Your task to perform on an android device: check android version Image 0: 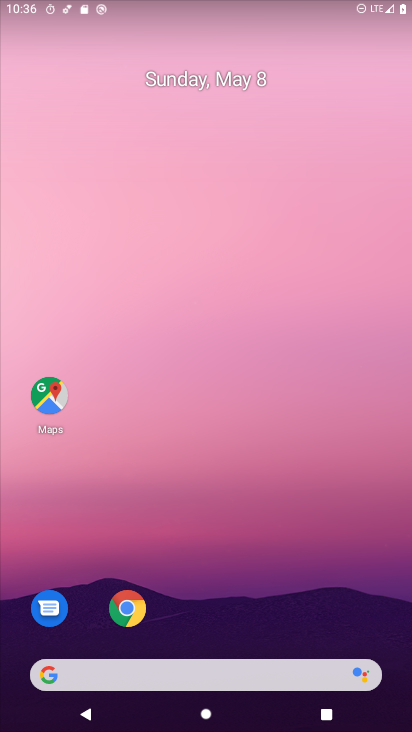
Step 0: drag from (223, 625) to (267, 172)
Your task to perform on an android device: check android version Image 1: 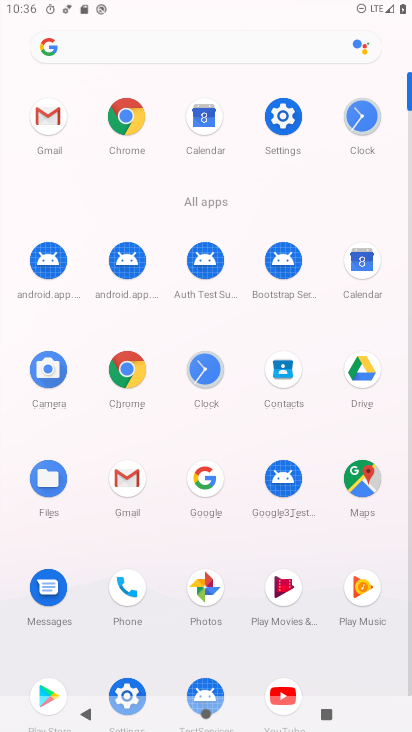
Step 1: click (276, 116)
Your task to perform on an android device: check android version Image 2: 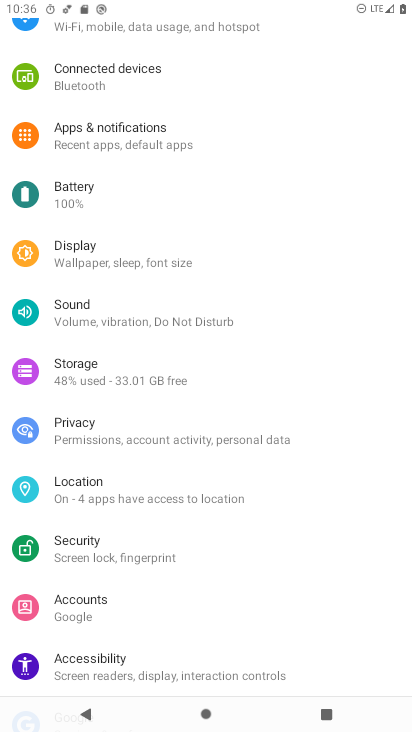
Step 2: drag from (170, 582) to (253, 121)
Your task to perform on an android device: check android version Image 3: 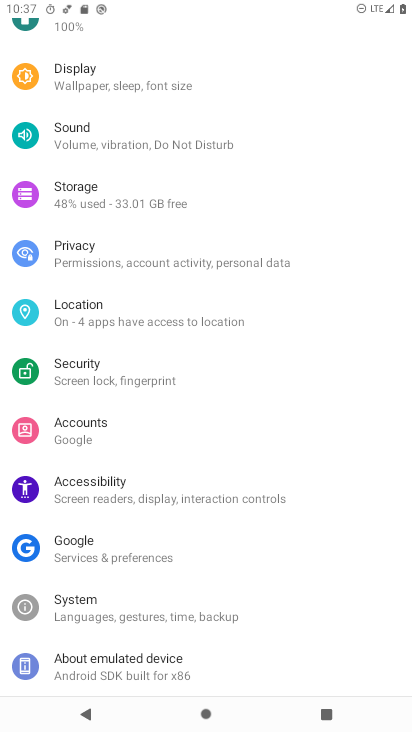
Step 3: click (156, 669)
Your task to perform on an android device: check android version Image 4: 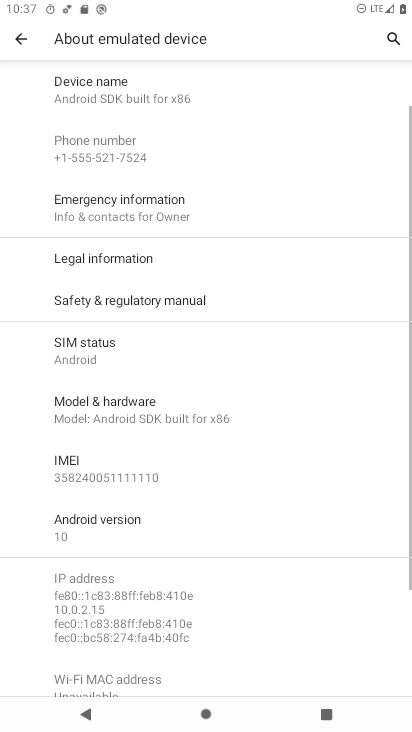
Step 4: click (128, 531)
Your task to perform on an android device: check android version Image 5: 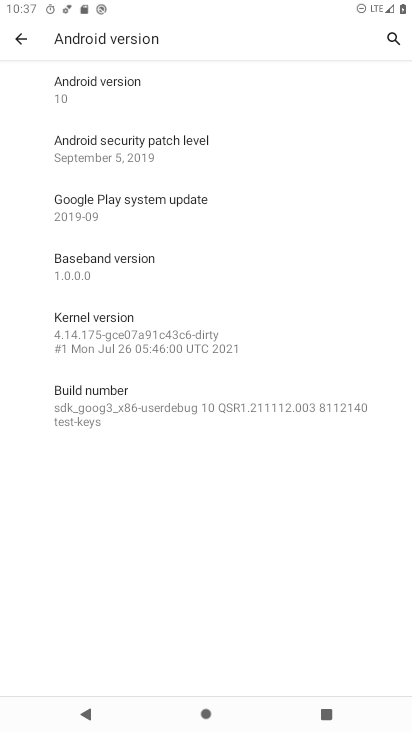
Step 5: task complete